Your task to perform on an android device: toggle javascript in the chrome app Image 0: 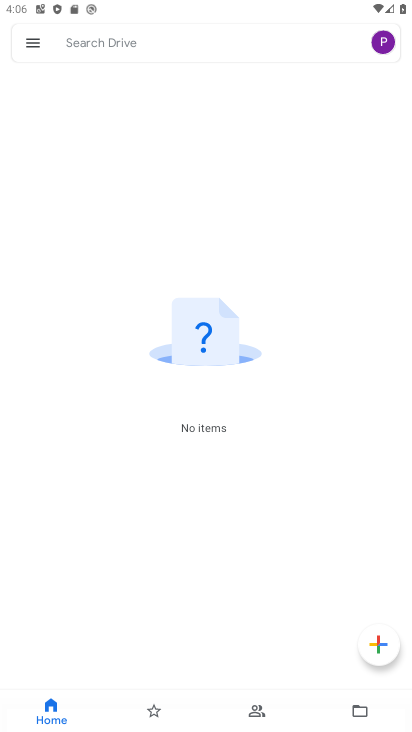
Step 0: press home button
Your task to perform on an android device: toggle javascript in the chrome app Image 1: 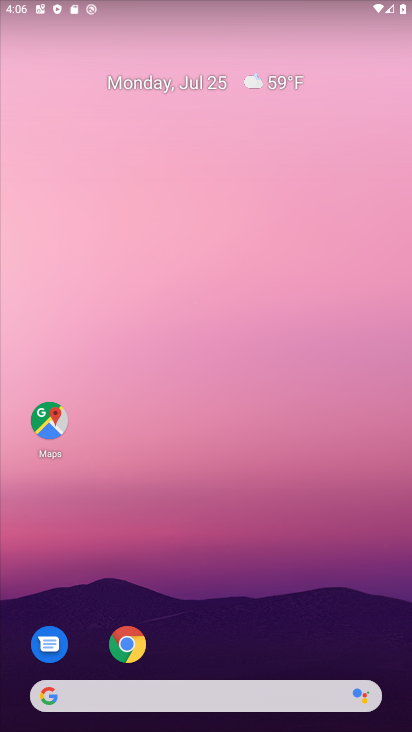
Step 1: drag from (194, 590) to (194, 164)
Your task to perform on an android device: toggle javascript in the chrome app Image 2: 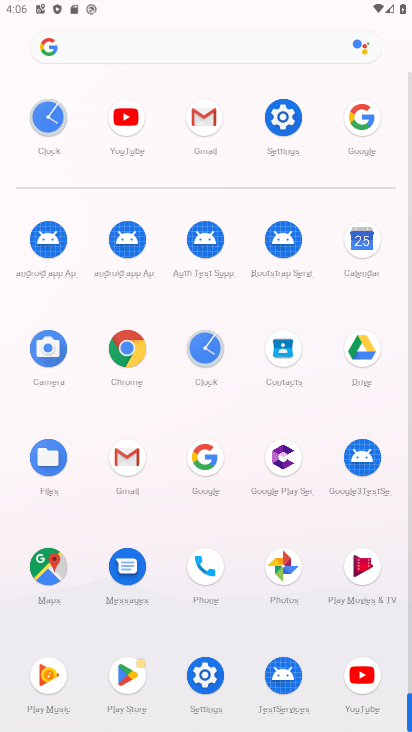
Step 2: click (131, 344)
Your task to perform on an android device: toggle javascript in the chrome app Image 3: 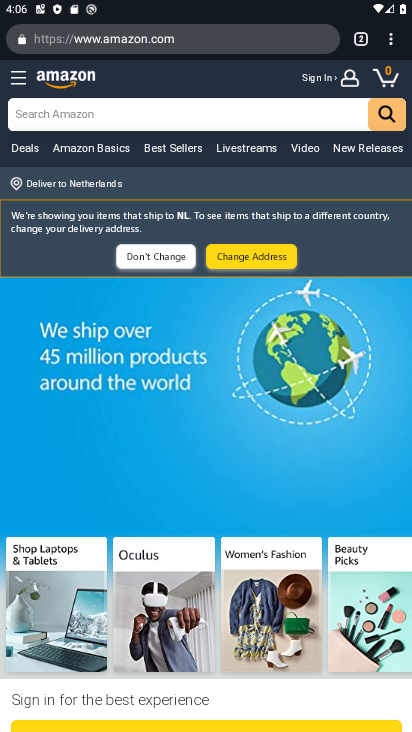
Step 3: click (387, 40)
Your task to perform on an android device: toggle javascript in the chrome app Image 4: 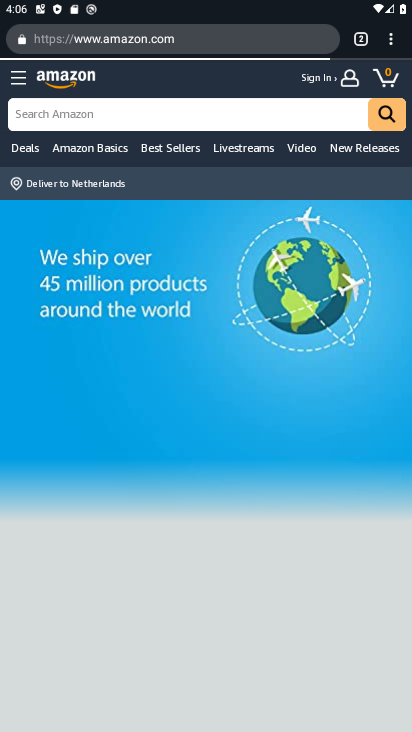
Step 4: click (392, 44)
Your task to perform on an android device: toggle javascript in the chrome app Image 5: 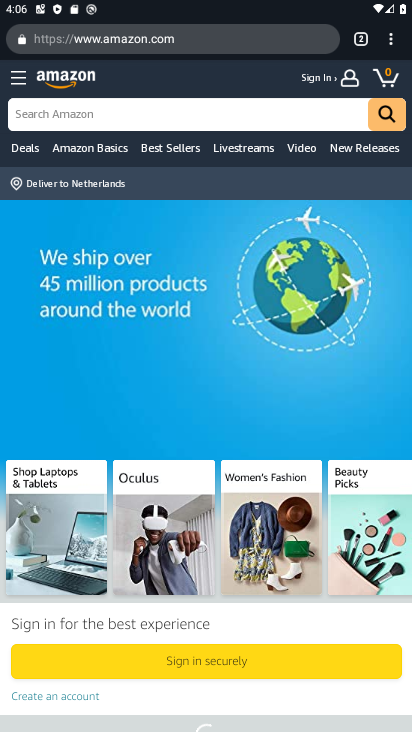
Step 5: click (392, 44)
Your task to perform on an android device: toggle javascript in the chrome app Image 6: 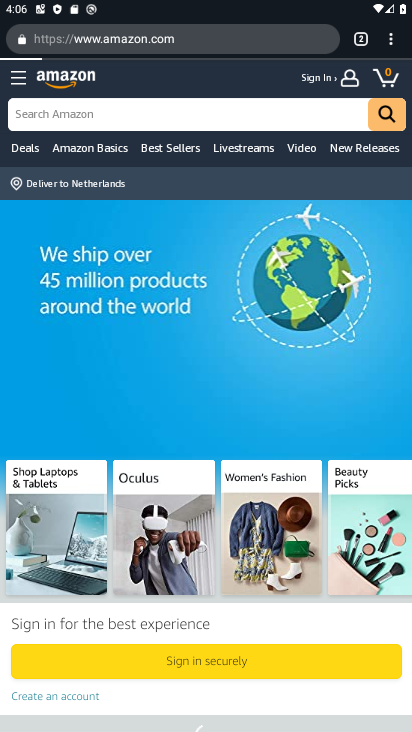
Step 6: click (392, 44)
Your task to perform on an android device: toggle javascript in the chrome app Image 7: 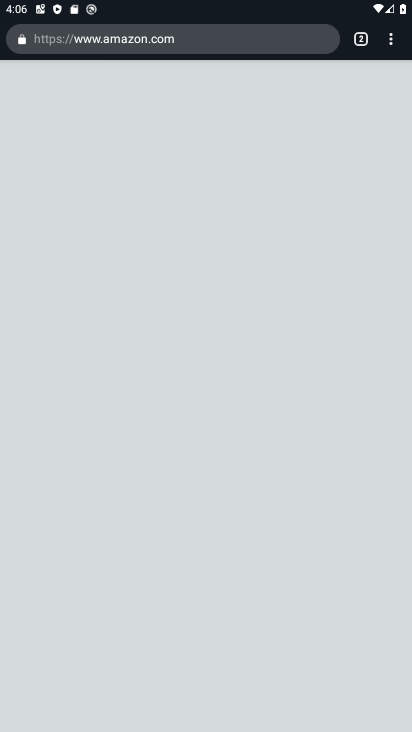
Step 7: click (391, 38)
Your task to perform on an android device: toggle javascript in the chrome app Image 8: 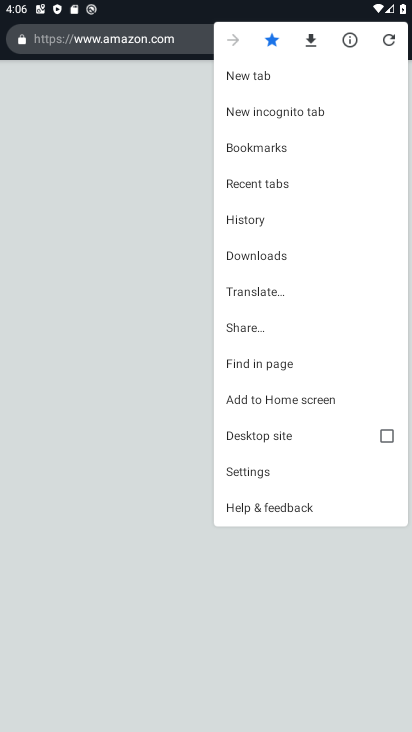
Step 8: click (259, 468)
Your task to perform on an android device: toggle javascript in the chrome app Image 9: 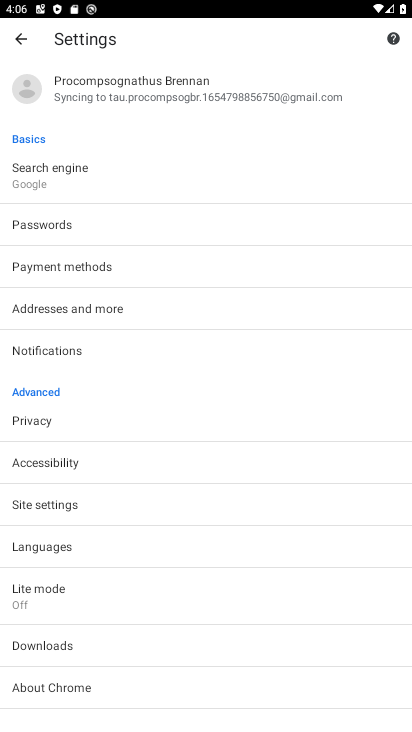
Step 9: click (67, 510)
Your task to perform on an android device: toggle javascript in the chrome app Image 10: 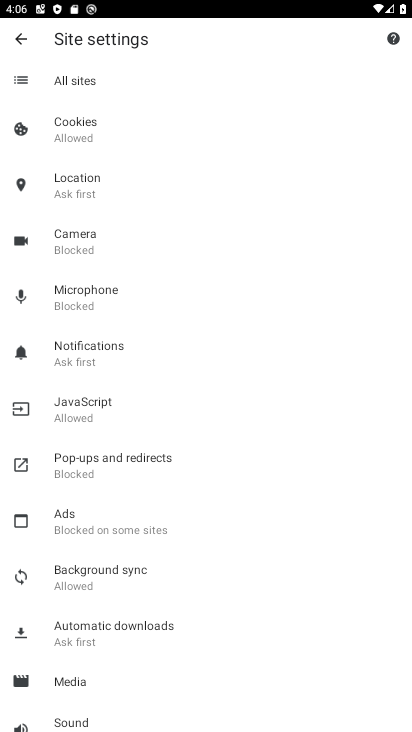
Step 10: click (93, 405)
Your task to perform on an android device: toggle javascript in the chrome app Image 11: 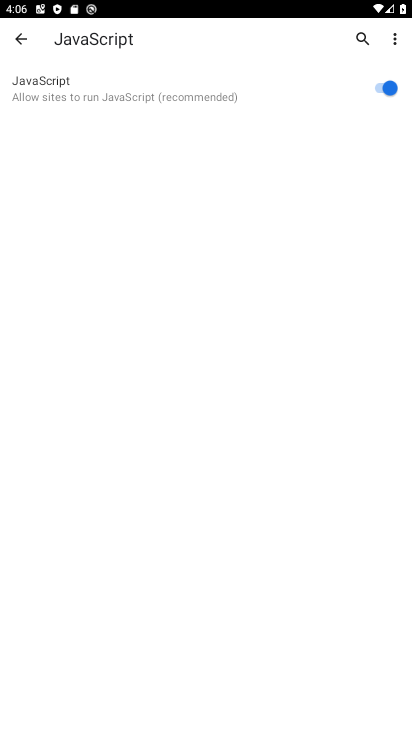
Step 11: click (384, 86)
Your task to perform on an android device: toggle javascript in the chrome app Image 12: 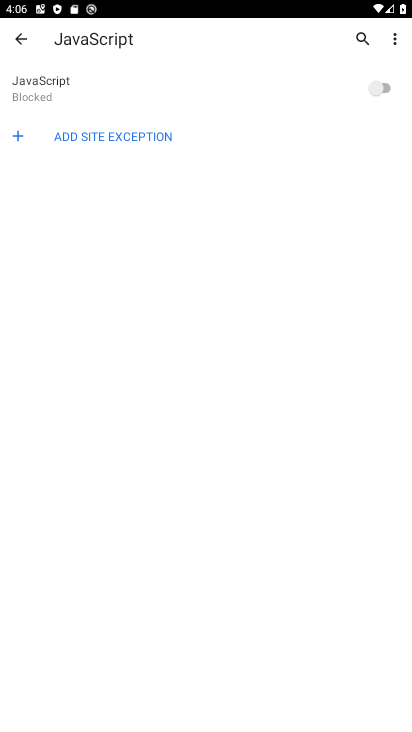
Step 12: task complete